Your task to perform on an android device: Do I have any events tomorrow? Image 0: 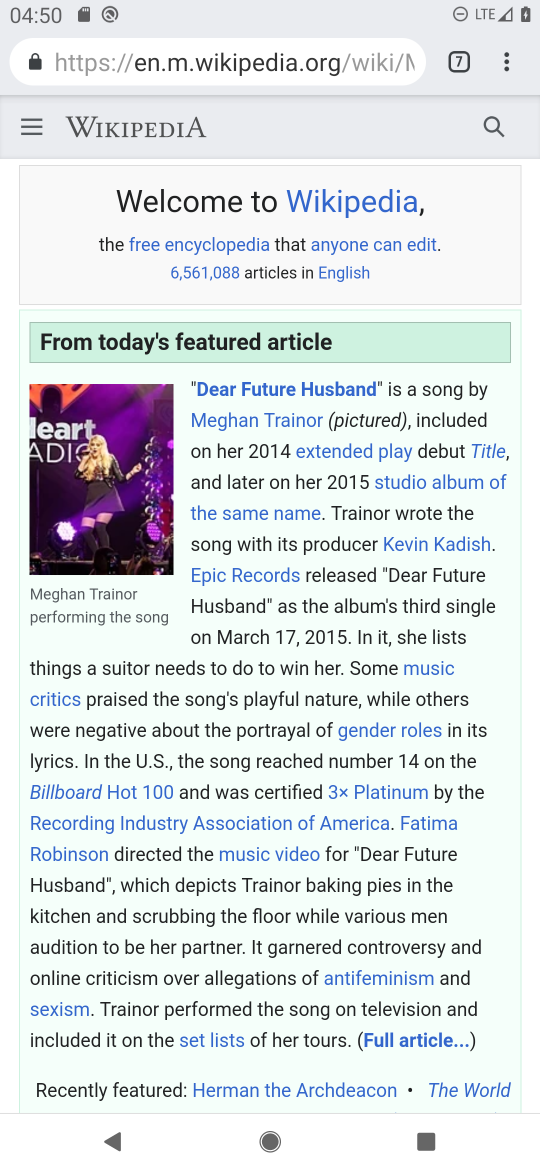
Step 0: press home button
Your task to perform on an android device: Do I have any events tomorrow? Image 1: 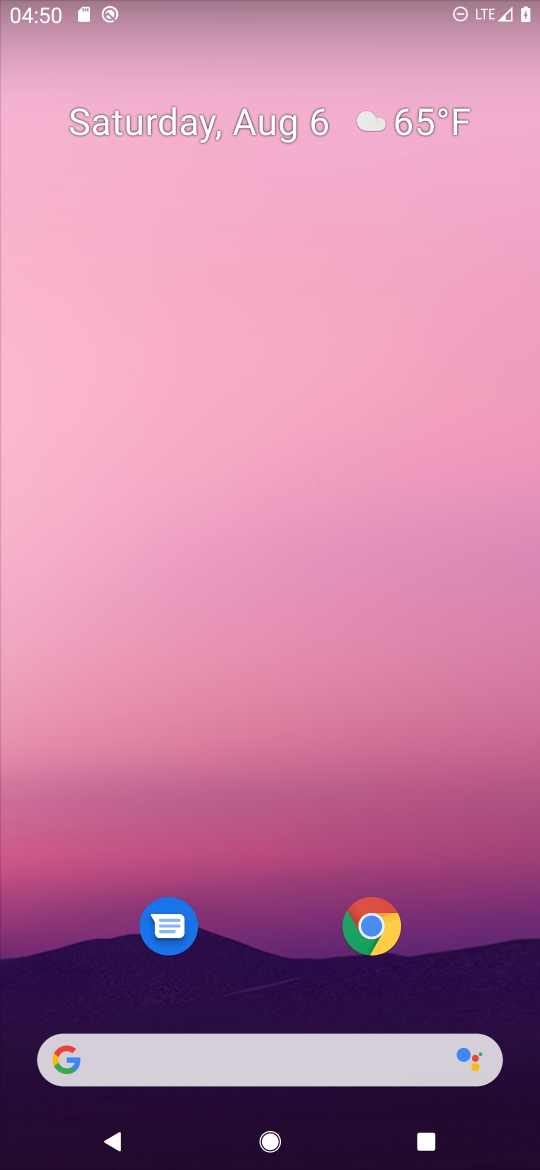
Step 1: drag from (257, 835) to (235, 227)
Your task to perform on an android device: Do I have any events tomorrow? Image 2: 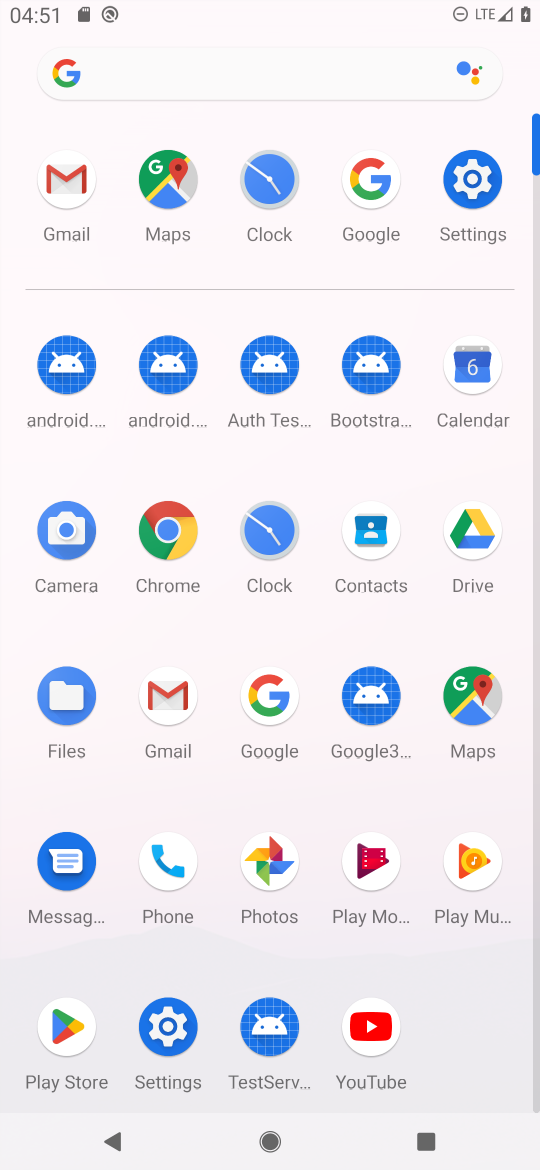
Step 2: click (449, 372)
Your task to perform on an android device: Do I have any events tomorrow? Image 3: 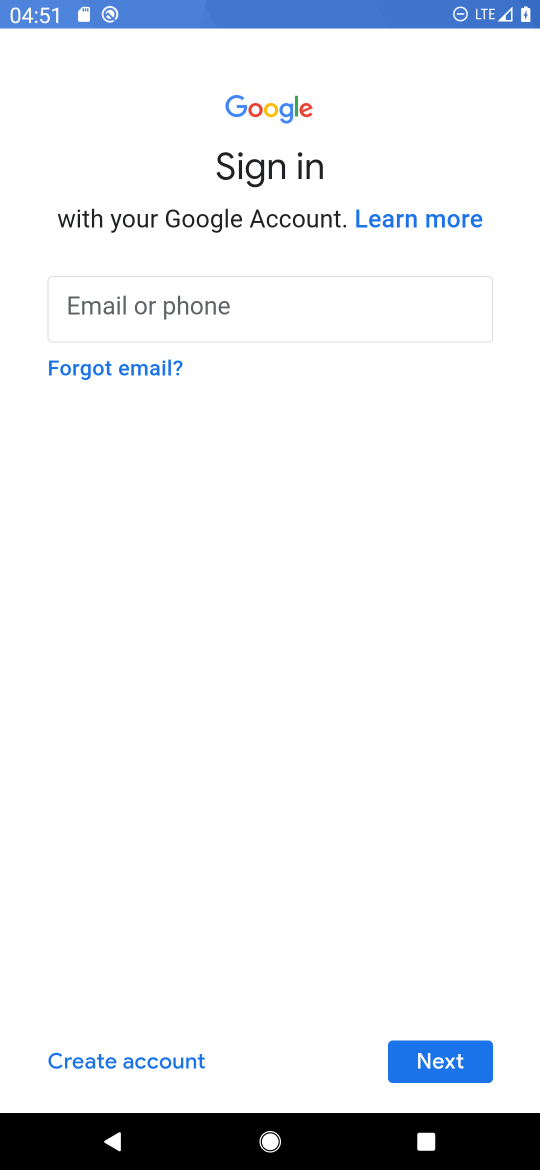
Step 3: click (441, 1040)
Your task to perform on an android device: Do I have any events tomorrow? Image 4: 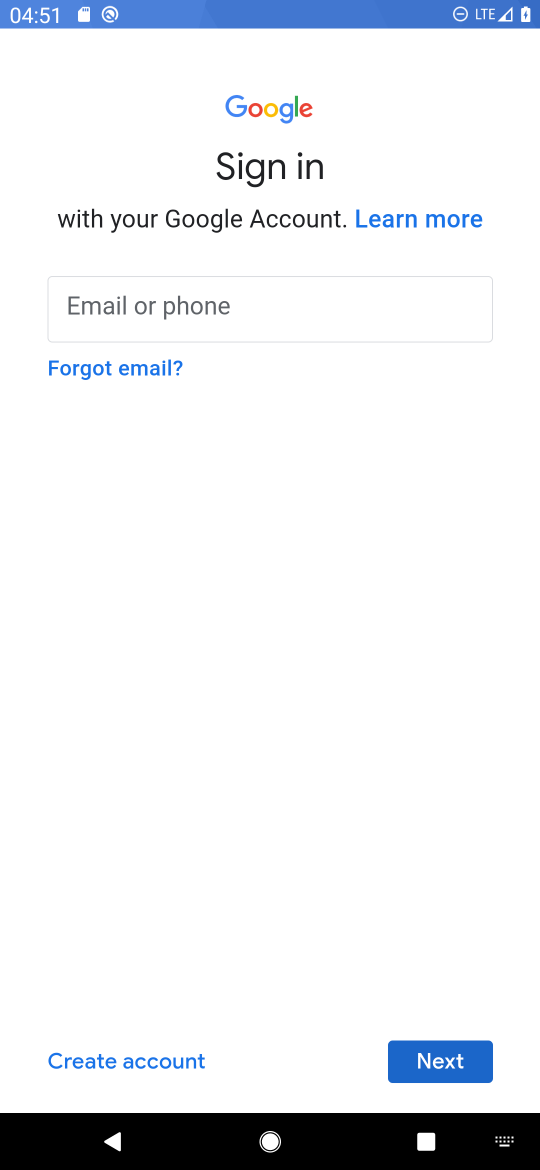
Step 4: task complete